Your task to perform on an android device: change alarm snooze length Image 0: 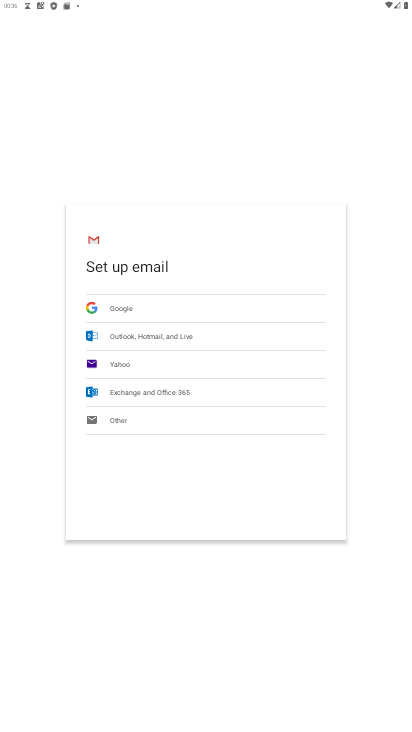
Step 0: press home button
Your task to perform on an android device: change alarm snooze length Image 1: 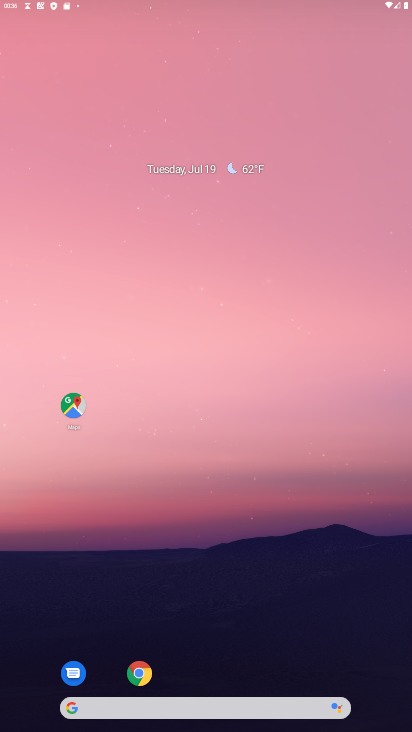
Step 1: drag from (276, 595) to (261, 94)
Your task to perform on an android device: change alarm snooze length Image 2: 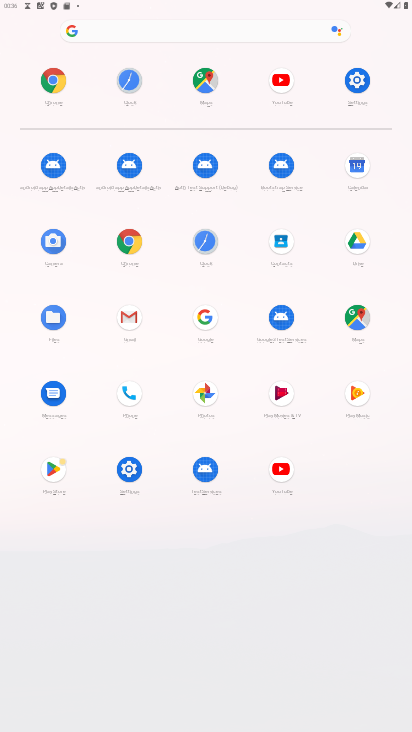
Step 2: click (199, 232)
Your task to perform on an android device: change alarm snooze length Image 3: 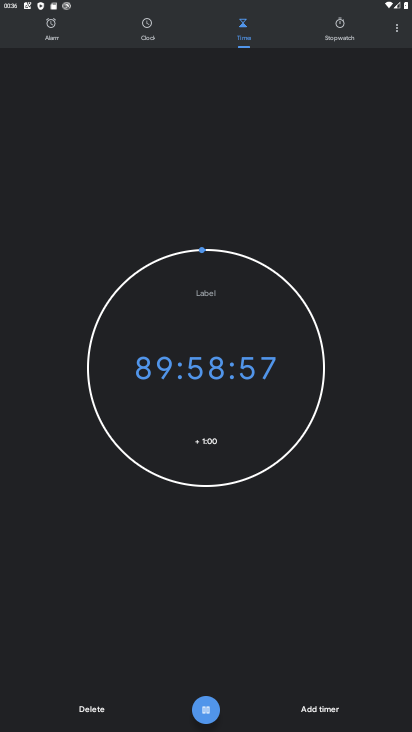
Step 3: click (394, 31)
Your task to perform on an android device: change alarm snooze length Image 4: 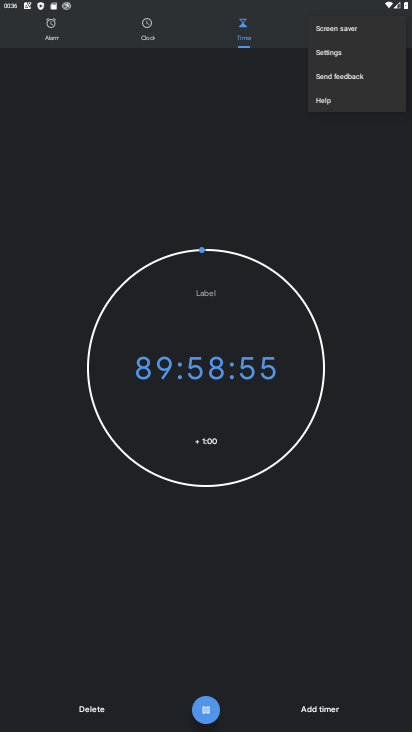
Step 4: click (337, 54)
Your task to perform on an android device: change alarm snooze length Image 5: 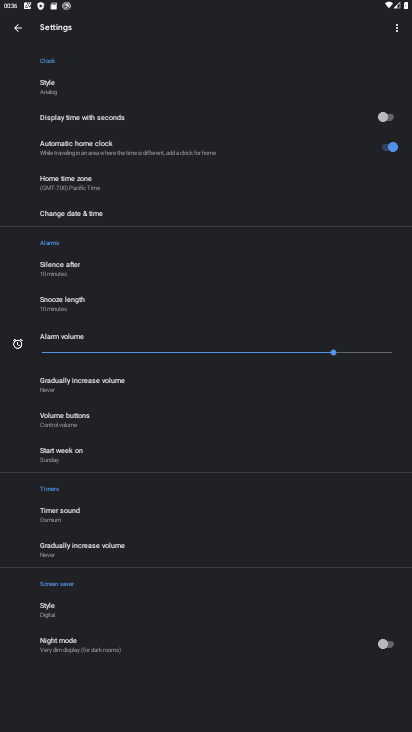
Step 5: click (68, 309)
Your task to perform on an android device: change alarm snooze length Image 6: 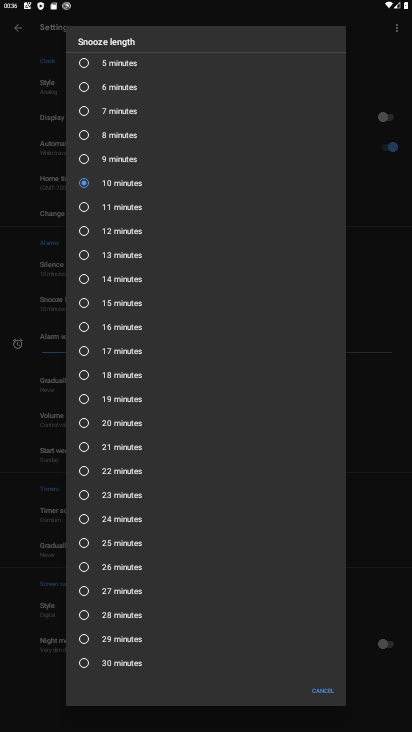
Step 6: click (133, 655)
Your task to perform on an android device: change alarm snooze length Image 7: 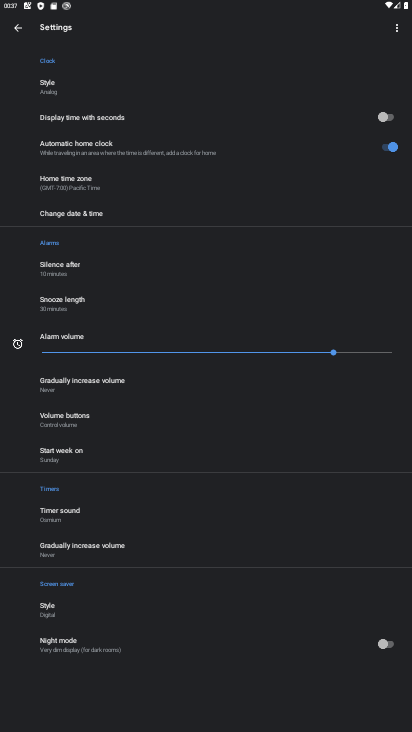
Step 7: task complete